Your task to perform on an android device: Open privacy settings Image 0: 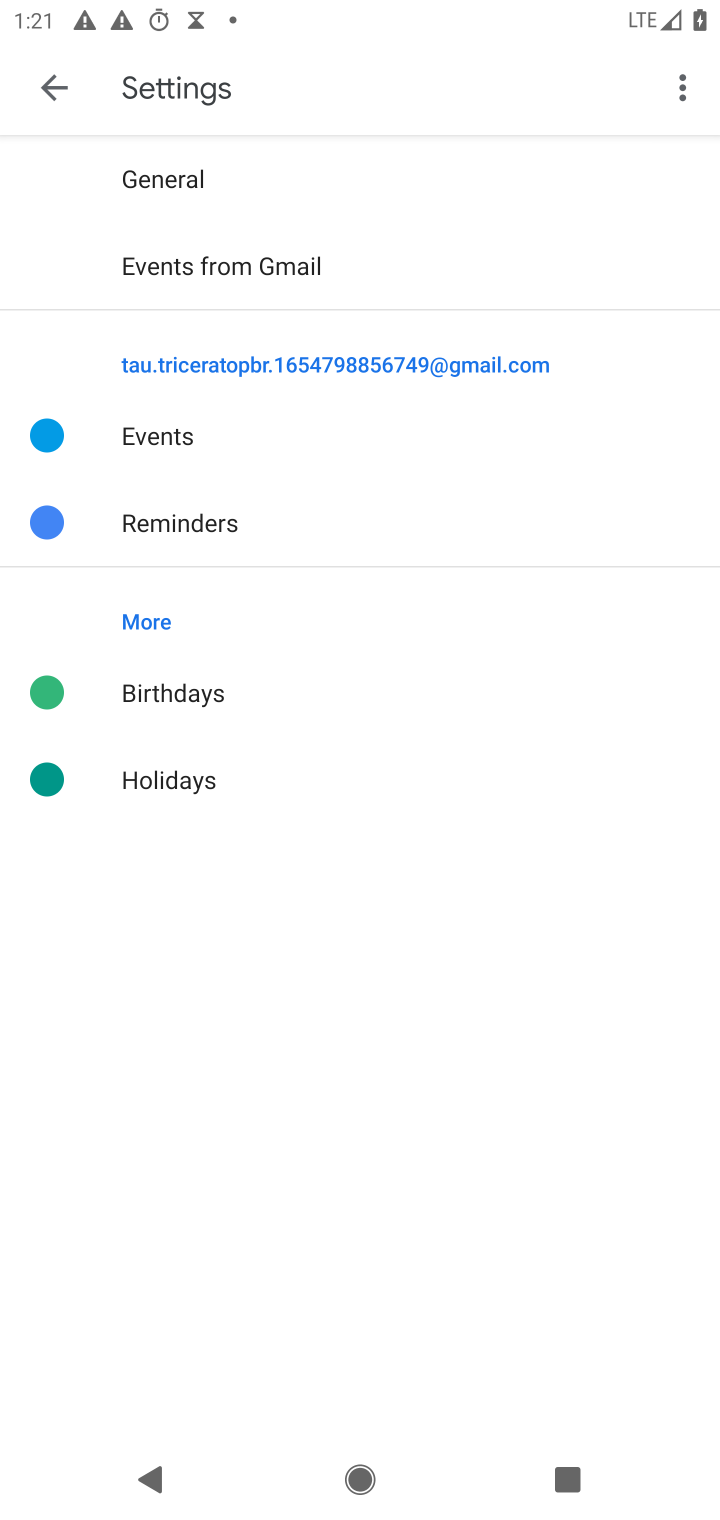
Step 0: press home button
Your task to perform on an android device: Open privacy settings Image 1: 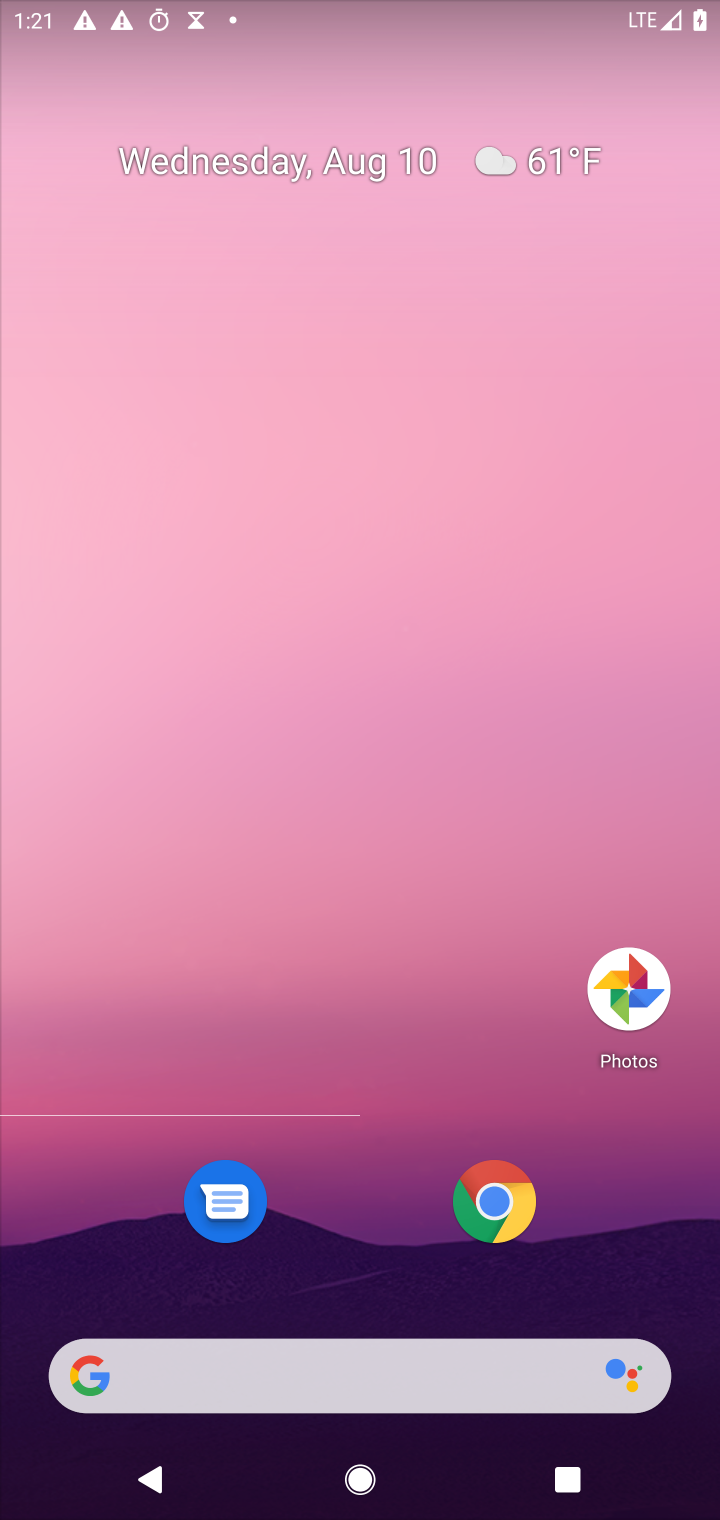
Step 1: drag from (389, 1144) to (326, 102)
Your task to perform on an android device: Open privacy settings Image 2: 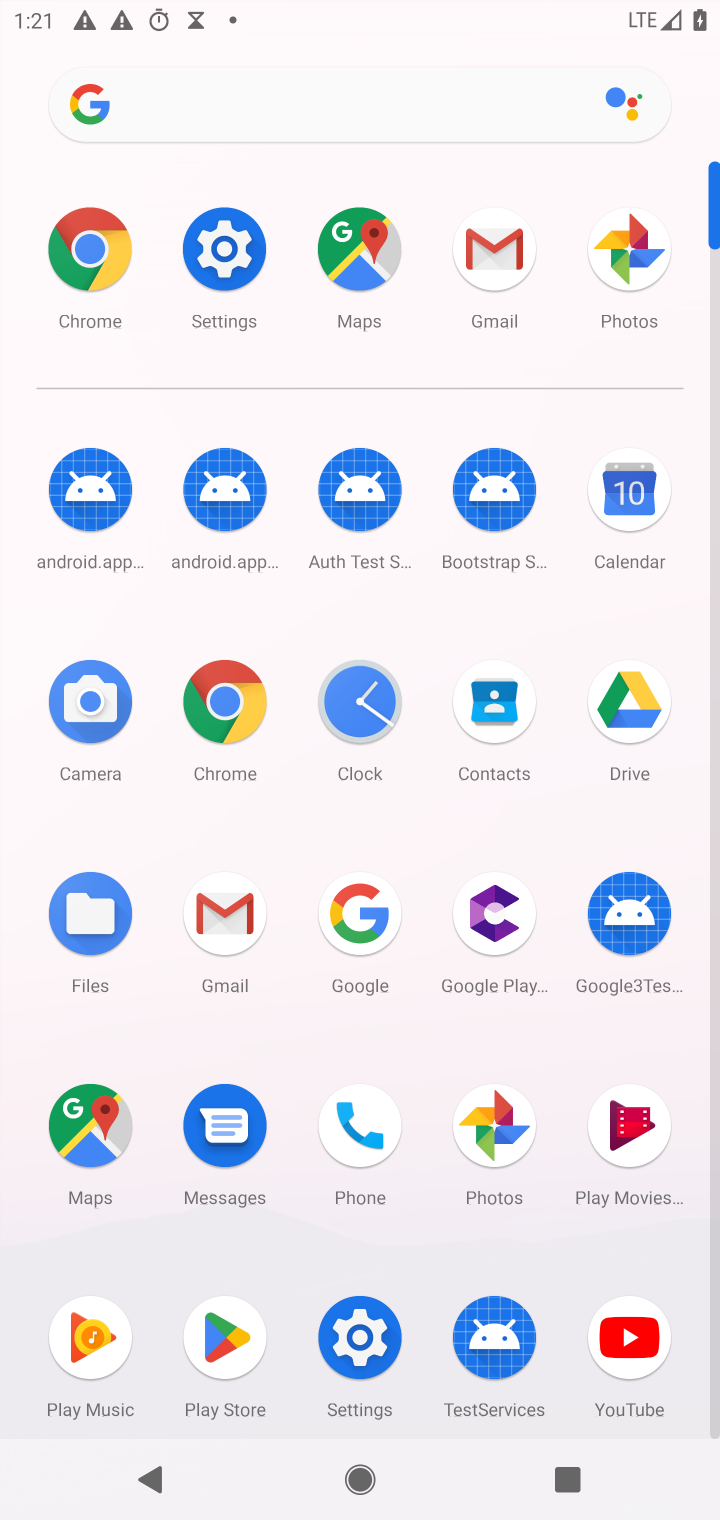
Step 2: click (209, 235)
Your task to perform on an android device: Open privacy settings Image 3: 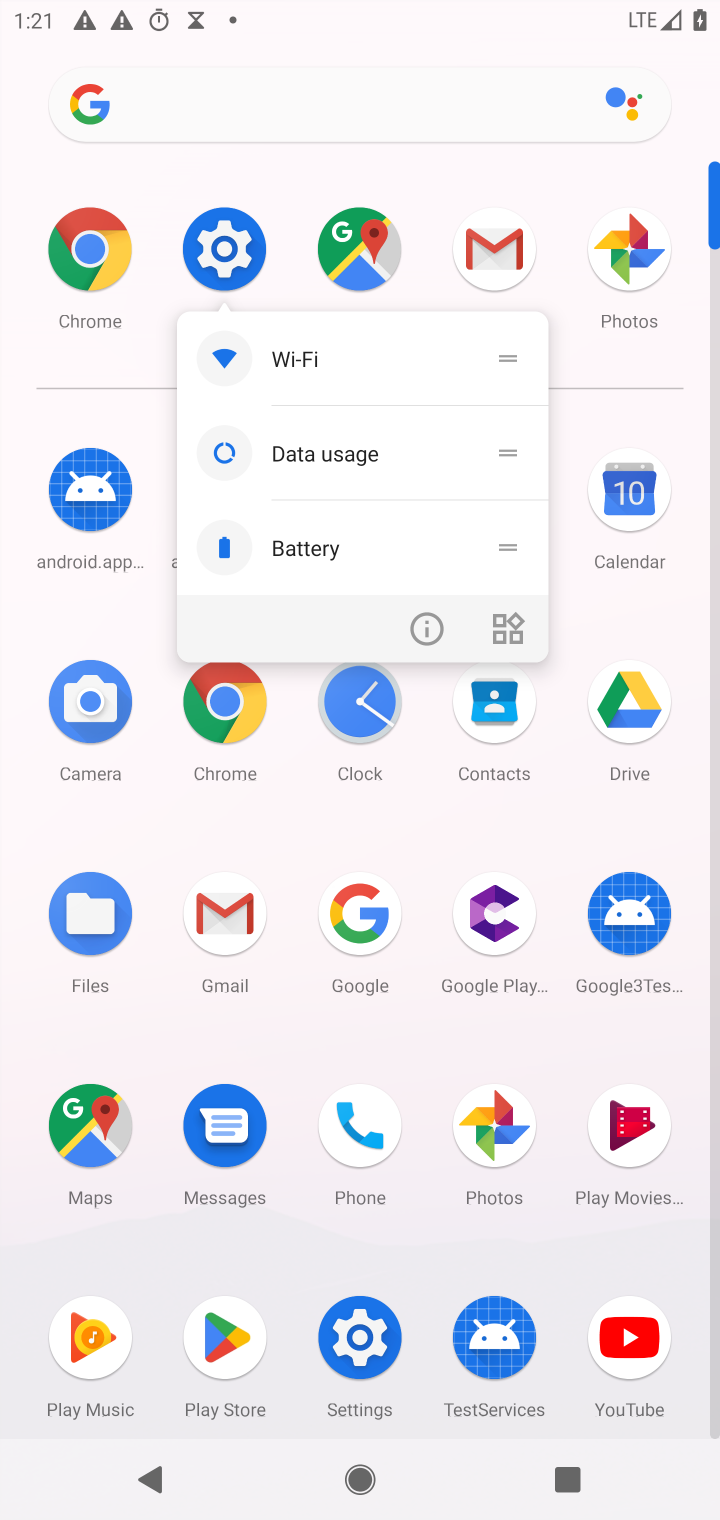
Step 3: click (218, 244)
Your task to perform on an android device: Open privacy settings Image 4: 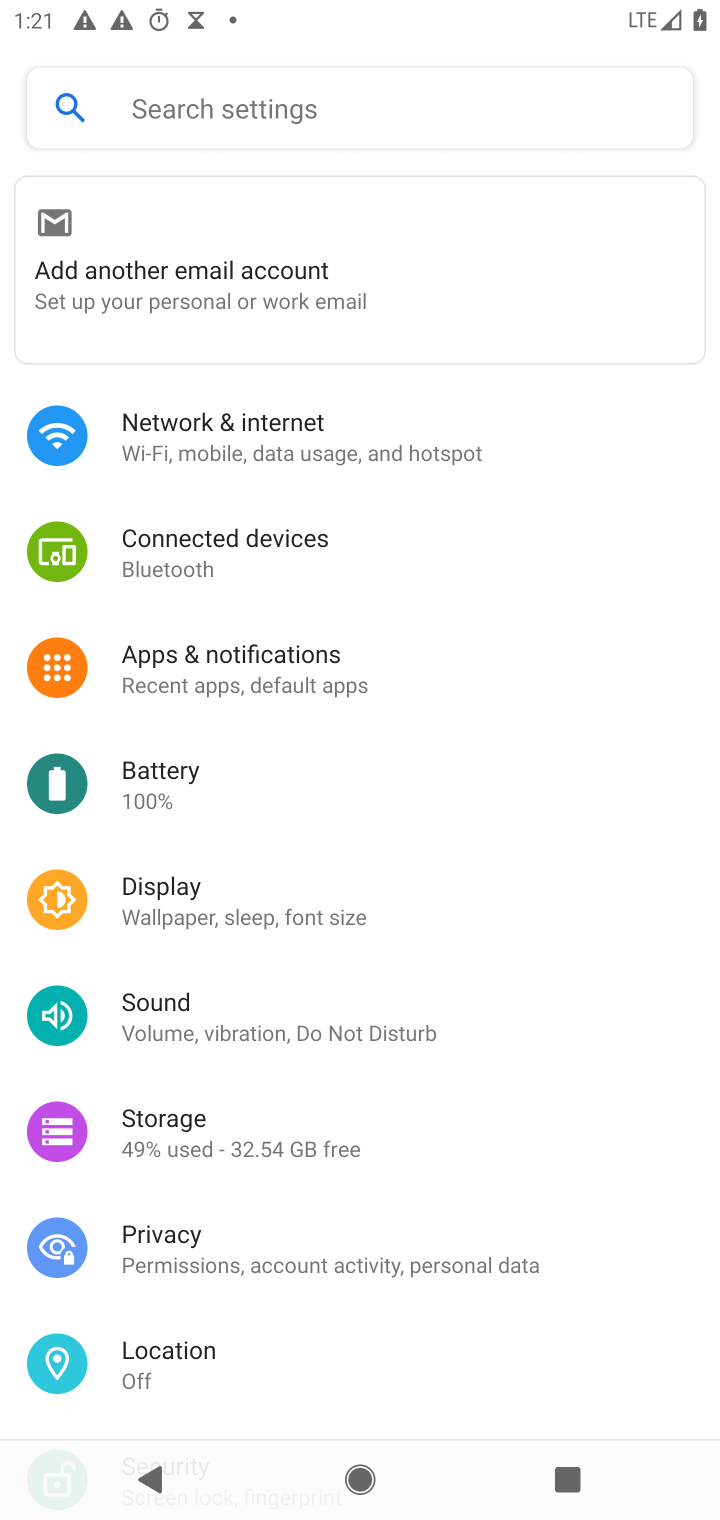
Step 4: click (174, 1248)
Your task to perform on an android device: Open privacy settings Image 5: 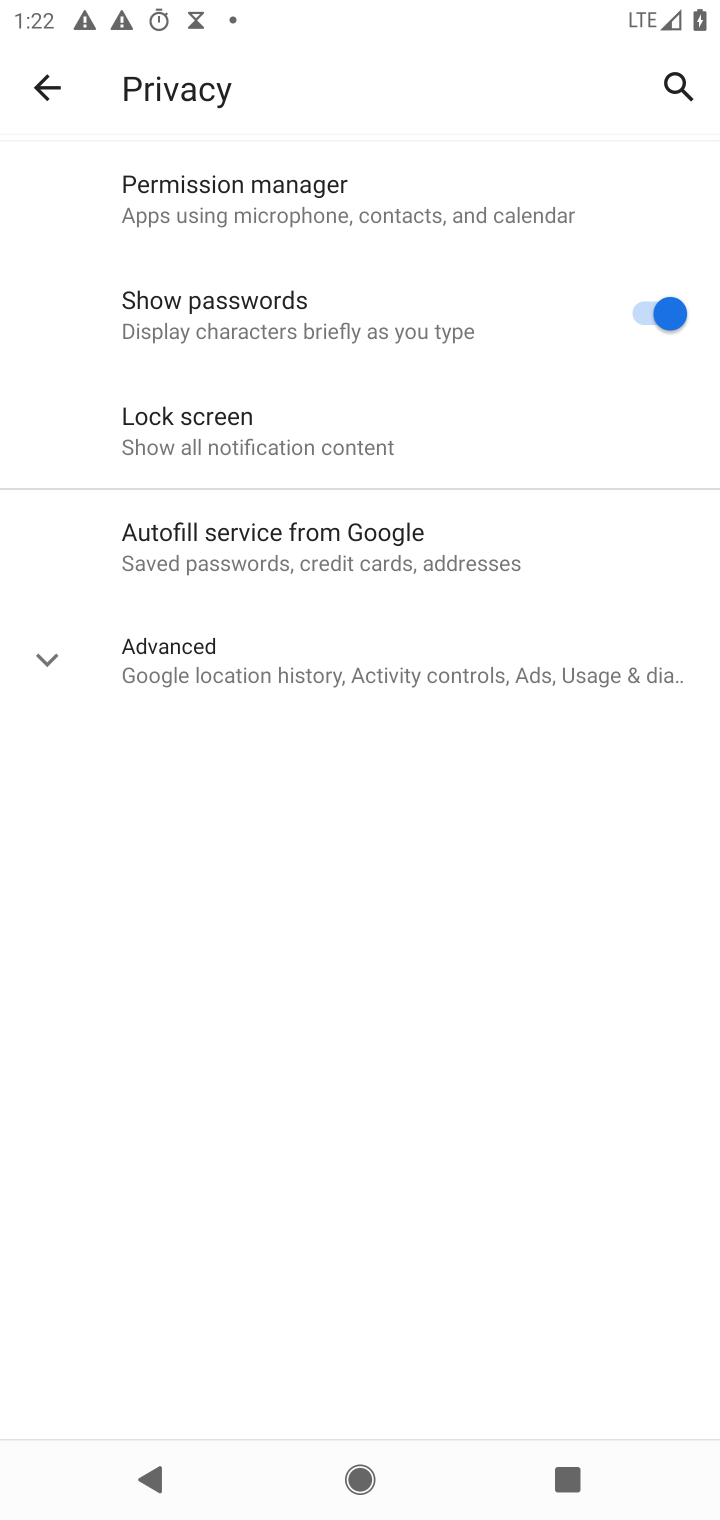
Step 5: task complete